Your task to perform on an android device: Open Amazon Image 0: 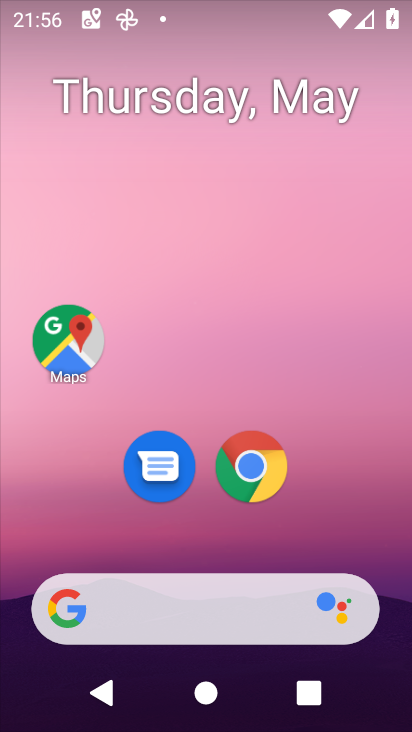
Step 0: click (242, 586)
Your task to perform on an android device: Open Amazon Image 1: 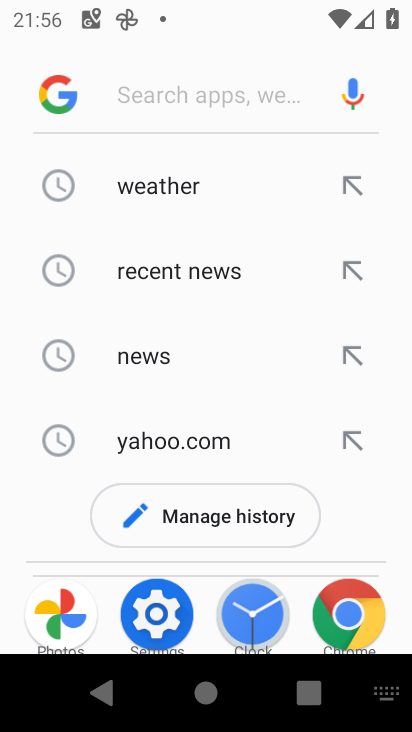
Step 1: type "amazon"
Your task to perform on an android device: Open Amazon Image 2: 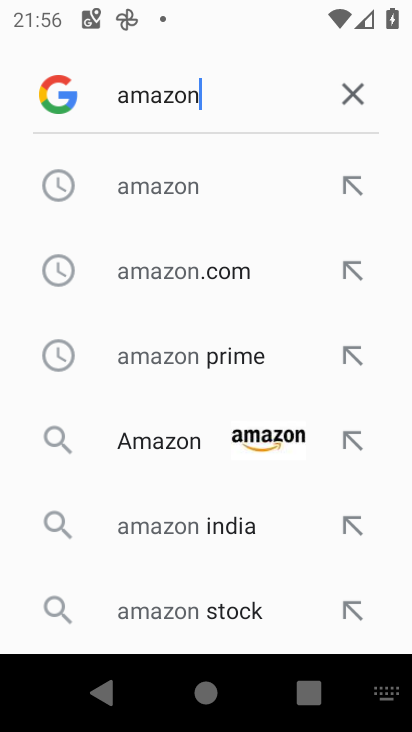
Step 2: click (169, 198)
Your task to perform on an android device: Open Amazon Image 3: 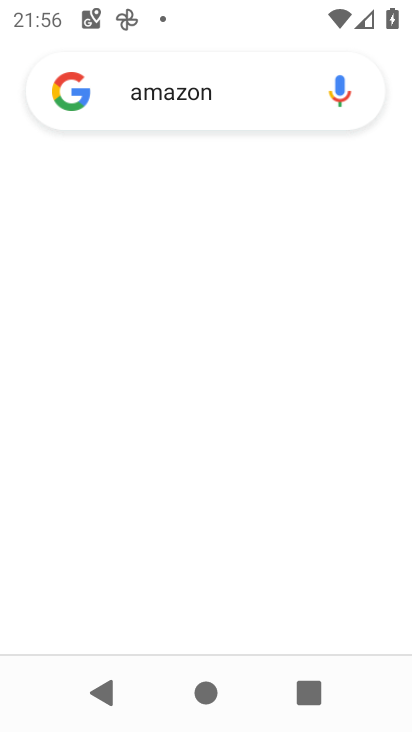
Step 3: task complete